Your task to perform on an android device: see creations saved in the google photos Image 0: 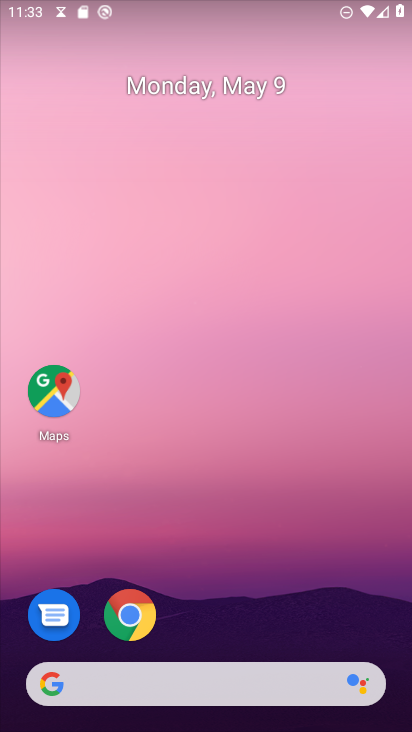
Step 0: drag from (216, 730) to (216, 123)
Your task to perform on an android device: see creations saved in the google photos Image 1: 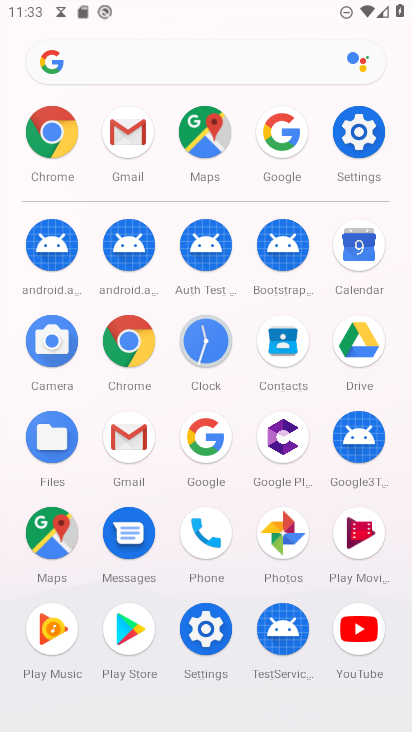
Step 1: click (288, 533)
Your task to perform on an android device: see creations saved in the google photos Image 2: 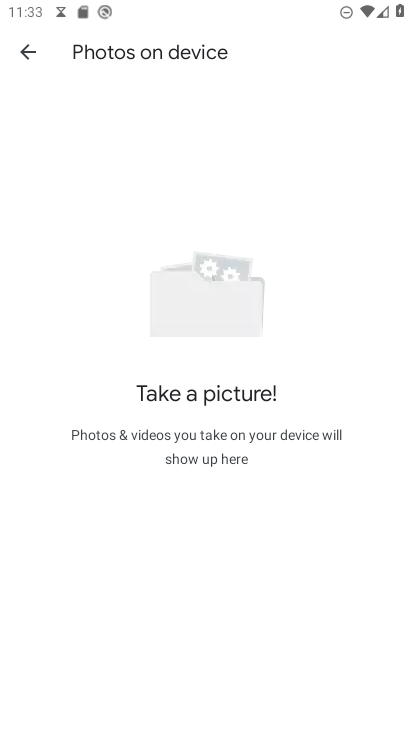
Step 2: click (26, 51)
Your task to perform on an android device: see creations saved in the google photos Image 3: 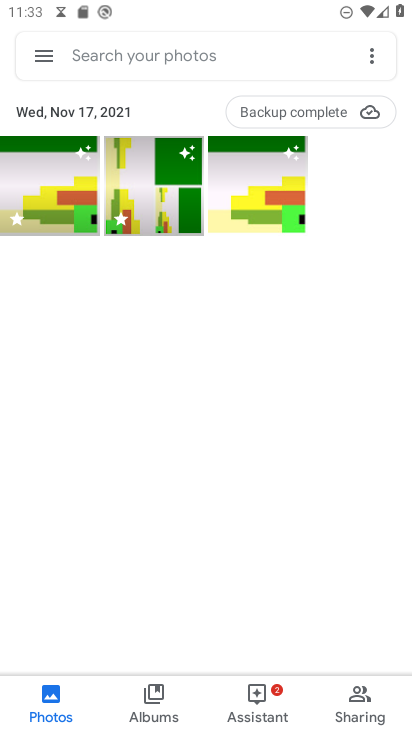
Step 3: click (162, 59)
Your task to perform on an android device: see creations saved in the google photos Image 4: 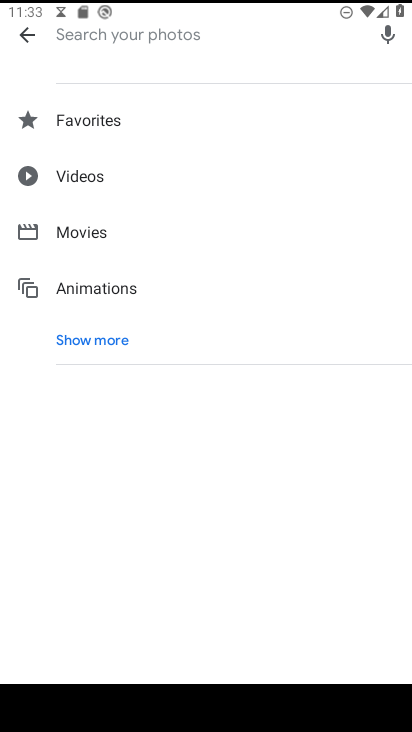
Step 4: click (96, 336)
Your task to perform on an android device: see creations saved in the google photos Image 5: 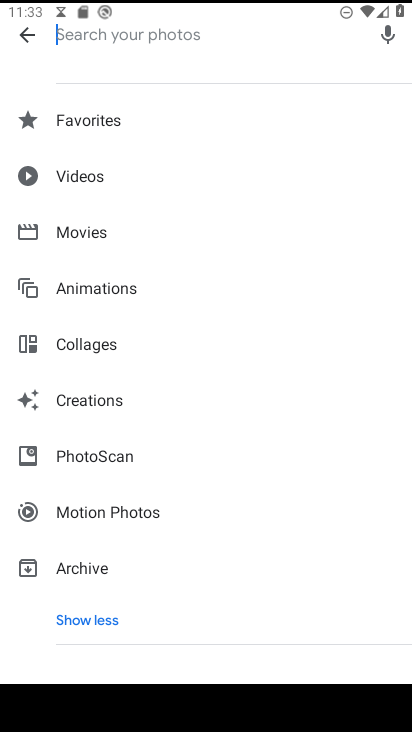
Step 5: click (87, 395)
Your task to perform on an android device: see creations saved in the google photos Image 6: 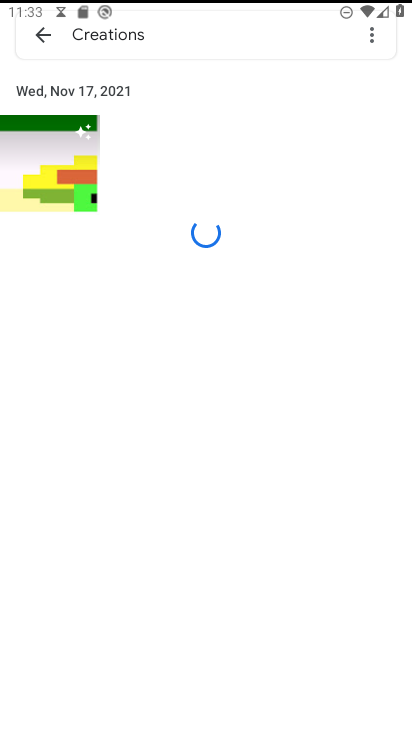
Step 6: task complete